Your task to perform on an android device: turn on wifi Image 0: 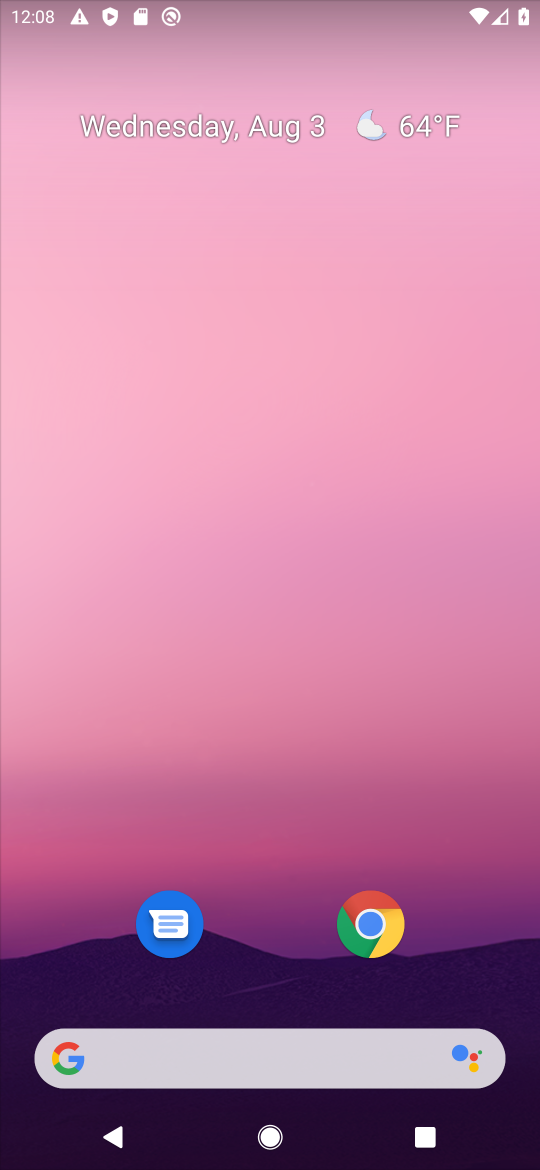
Step 0: drag from (134, 24) to (244, 734)
Your task to perform on an android device: turn on wifi Image 1: 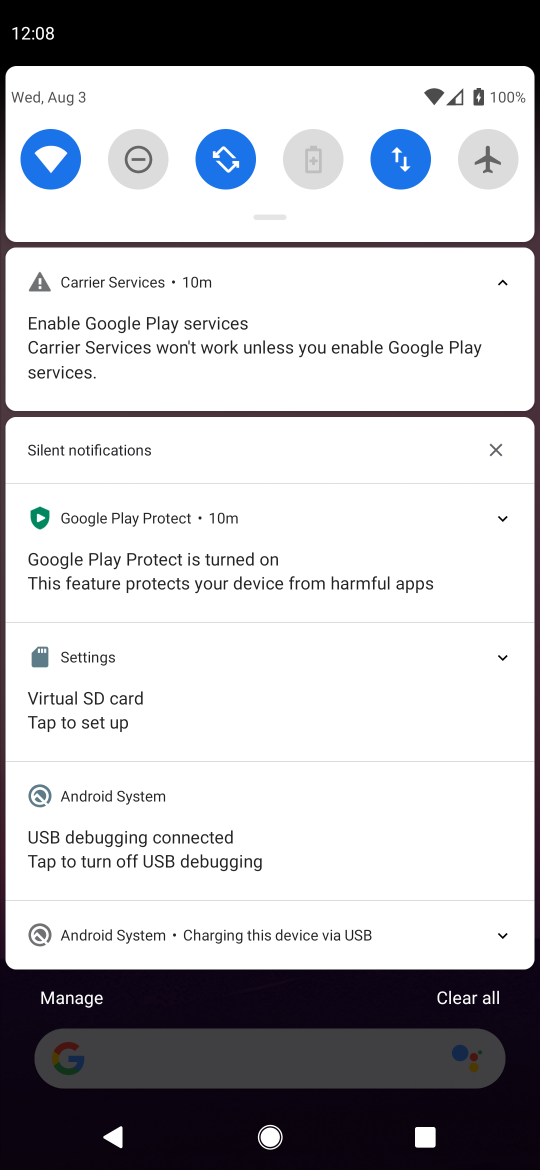
Step 1: task complete